Your task to perform on an android device: Go to Maps Image 0: 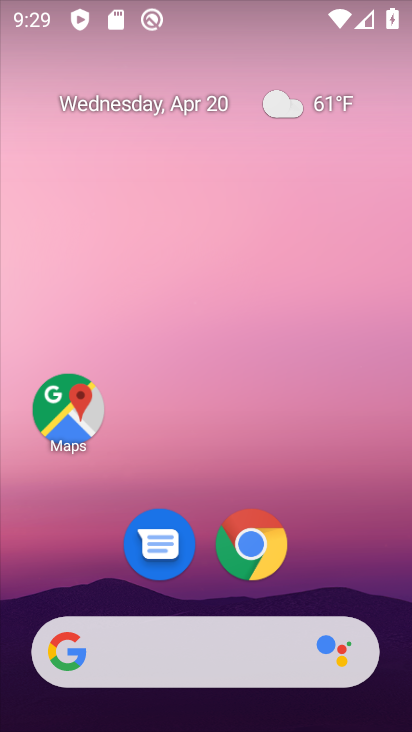
Step 0: click (67, 419)
Your task to perform on an android device: Go to Maps Image 1: 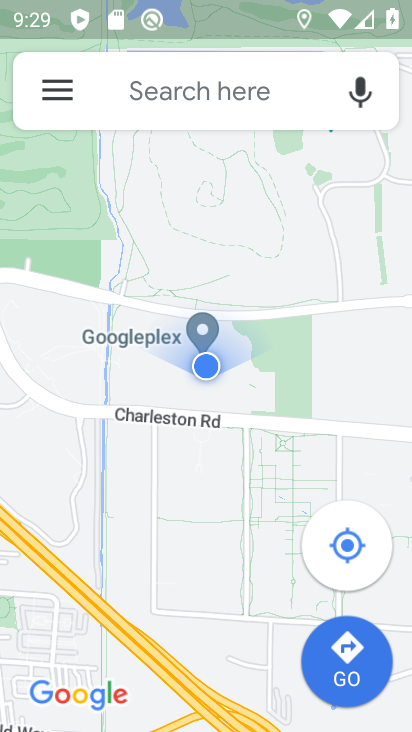
Step 1: task complete